Your task to perform on an android device: open chrome privacy settings Image 0: 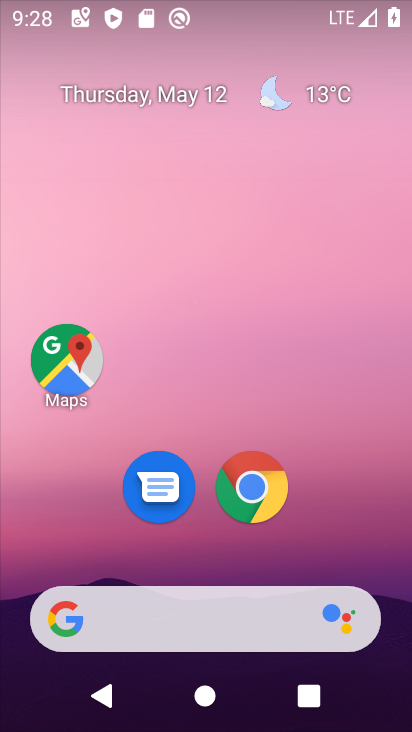
Step 0: click (250, 508)
Your task to perform on an android device: open chrome privacy settings Image 1: 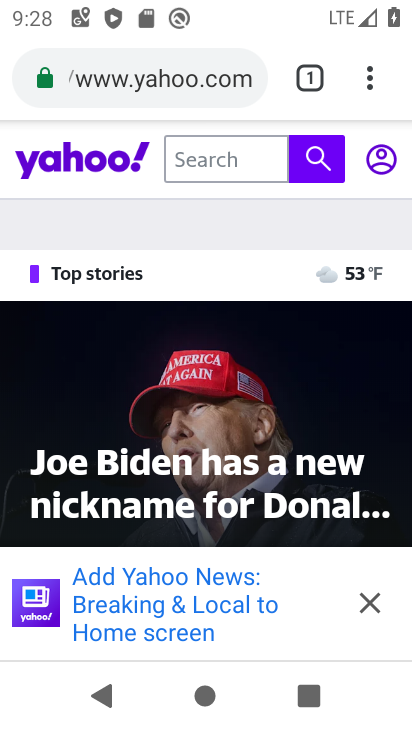
Step 1: click (369, 92)
Your task to perform on an android device: open chrome privacy settings Image 2: 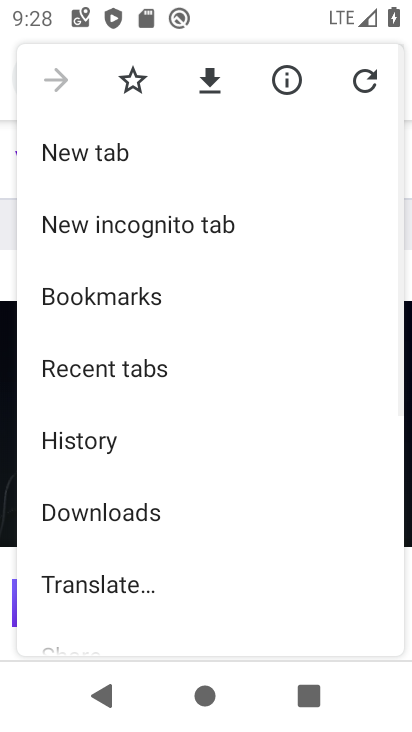
Step 2: drag from (216, 554) to (174, 209)
Your task to perform on an android device: open chrome privacy settings Image 3: 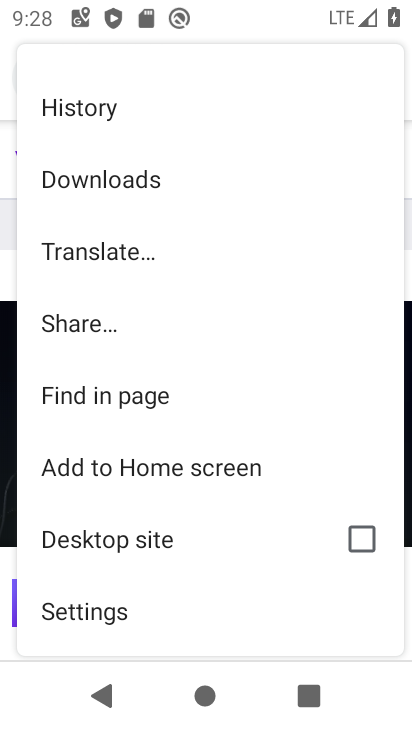
Step 3: click (102, 609)
Your task to perform on an android device: open chrome privacy settings Image 4: 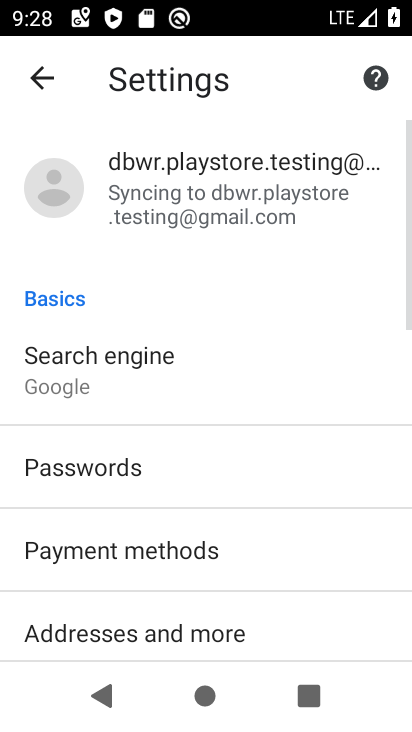
Step 4: drag from (175, 528) to (133, 75)
Your task to perform on an android device: open chrome privacy settings Image 5: 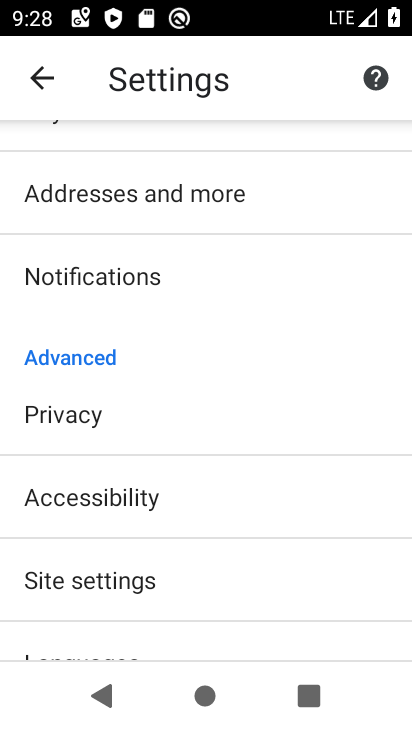
Step 5: click (83, 411)
Your task to perform on an android device: open chrome privacy settings Image 6: 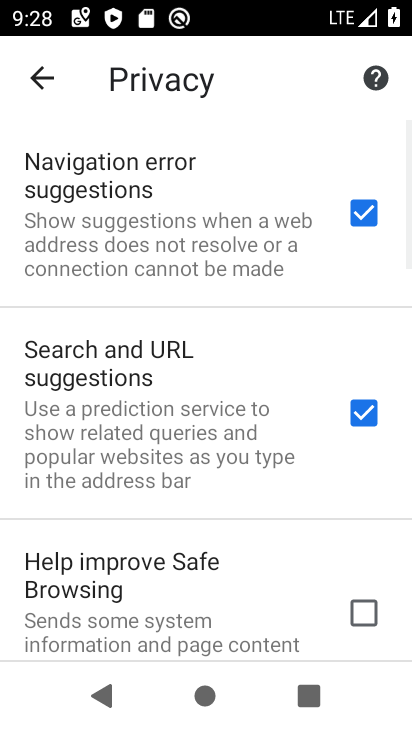
Step 6: task complete